Your task to perform on an android device: Open accessibility settings Image 0: 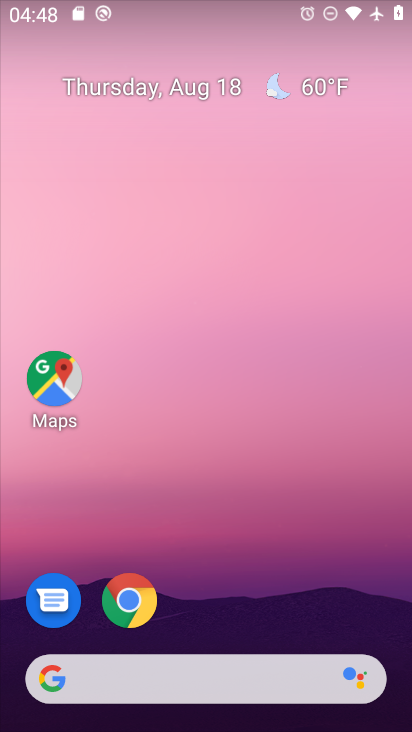
Step 0: press home button
Your task to perform on an android device: Open accessibility settings Image 1: 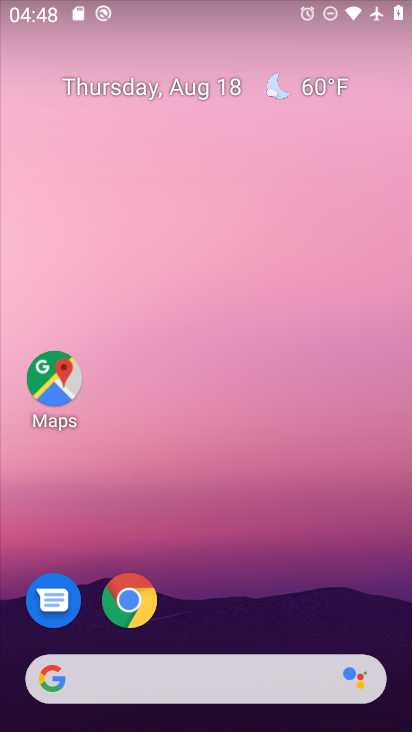
Step 1: drag from (202, 628) to (241, 69)
Your task to perform on an android device: Open accessibility settings Image 2: 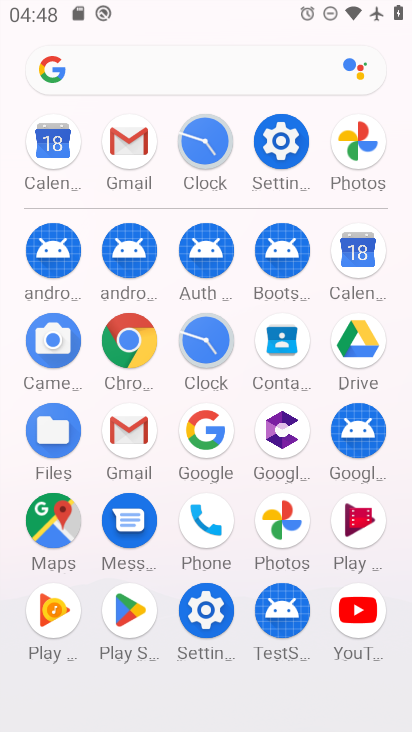
Step 2: click (277, 149)
Your task to perform on an android device: Open accessibility settings Image 3: 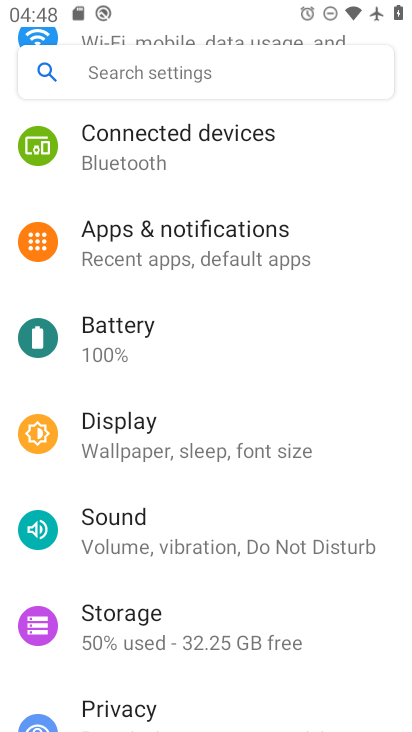
Step 3: drag from (291, 693) to (305, 166)
Your task to perform on an android device: Open accessibility settings Image 4: 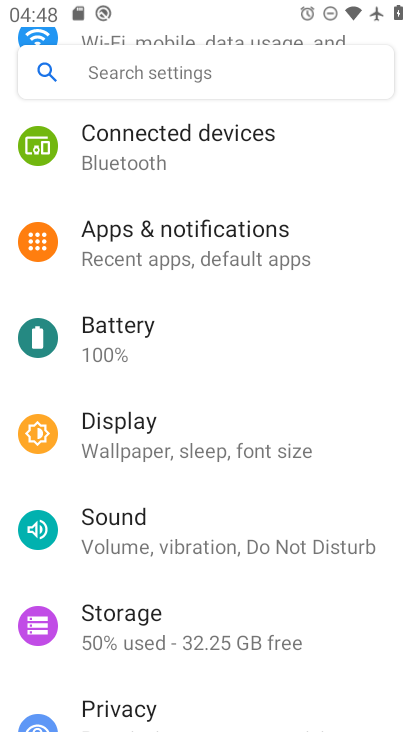
Step 4: drag from (241, 598) to (319, 59)
Your task to perform on an android device: Open accessibility settings Image 5: 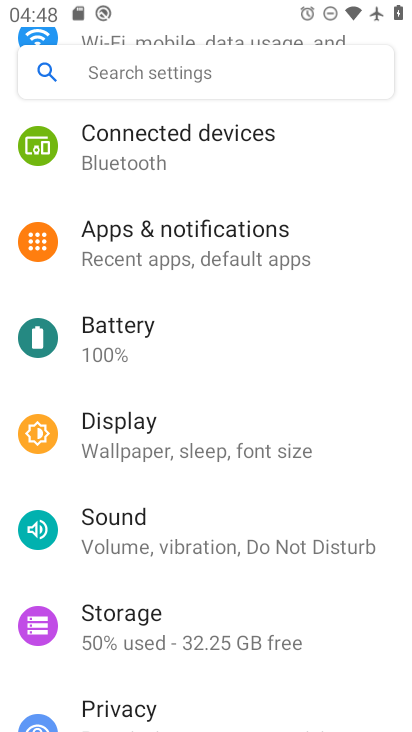
Step 5: drag from (197, 689) to (225, 144)
Your task to perform on an android device: Open accessibility settings Image 6: 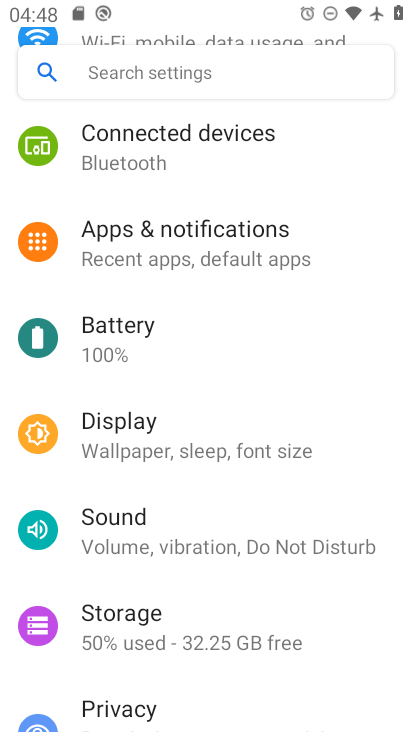
Step 6: drag from (279, 588) to (270, 2)
Your task to perform on an android device: Open accessibility settings Image 7: 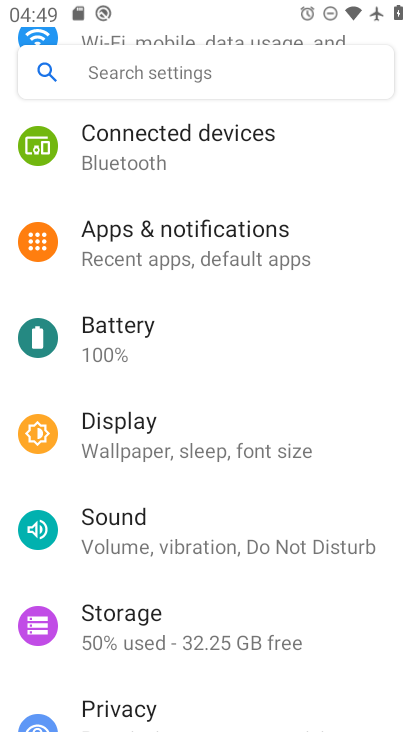
Step 7: drag from (253, 667) to (309, 86)
Your task to perform on an android device: Open accessibility settings Image 8: 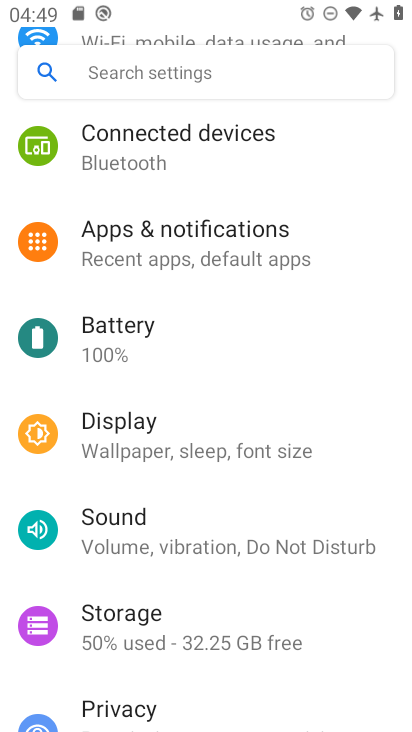
Step 8: drag from (227, 590) to (239, 1)
Your task to perform on an android device: Open accessibility settings Image 9: 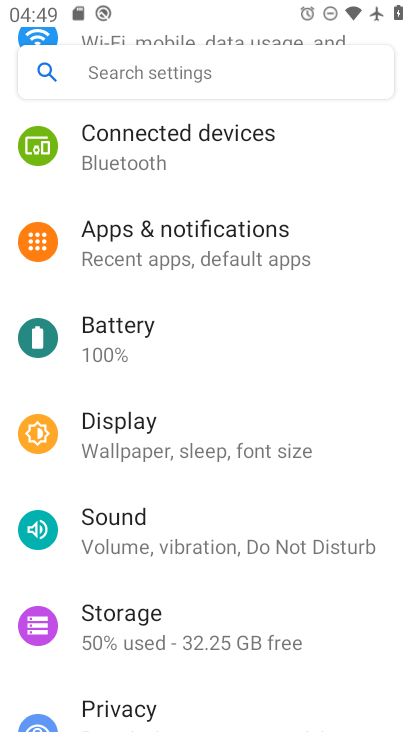
Step 9: drag from (254, 672) to (301, 0)
Your task to perform on an android device: Open accessibility settings Image 10: 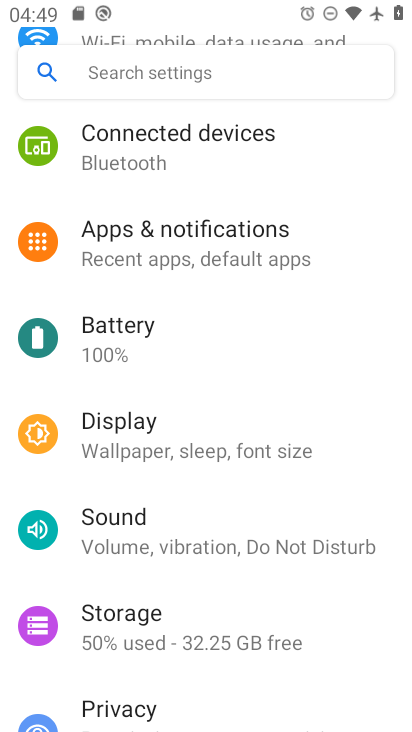
Step 10: drag from (224, 689) to (242, 59)
Your task to perform on an android device: Open accessibility settings Image 11: 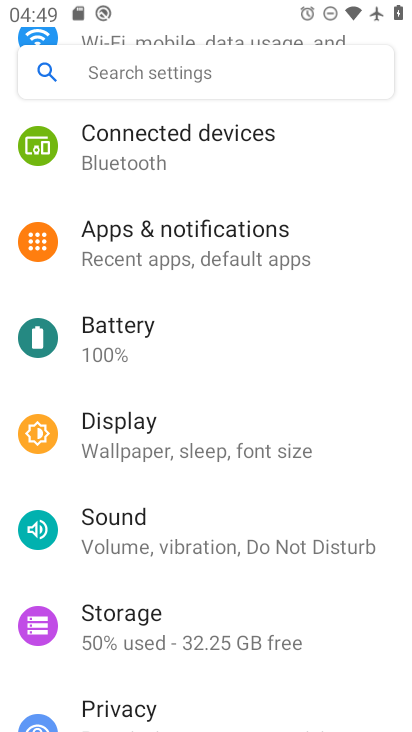
Step 11: drag from (217, 599) to (235, 13)
Your task to perform on an android device: Open accessibility settings Image 12: 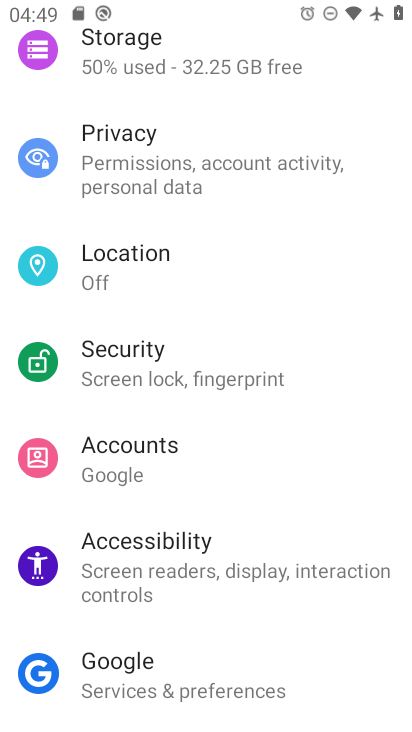
Step 12: click (137, 565)
Your task to perform on an android device: Open accessibility settings Image 13: 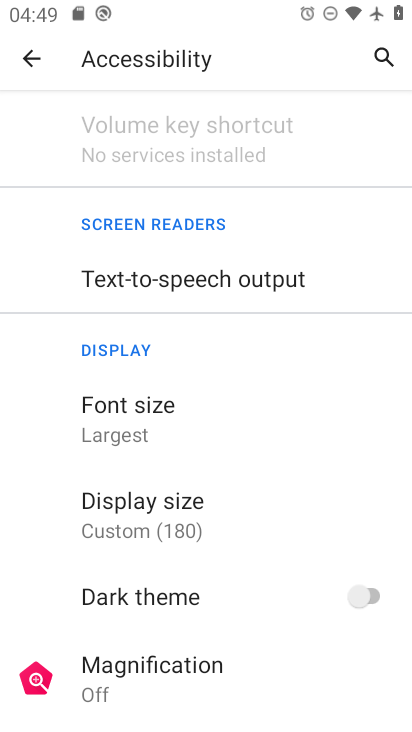
Step 13: task complete